Your task to perform on an android device: turn on bluetooth scan Image 0: 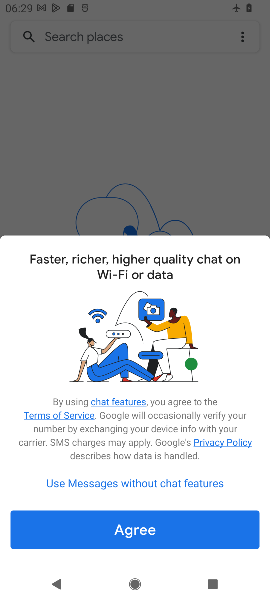
Step 0: press home button
Your task to perform on an android device: turn on bluetooth scan Image 1: 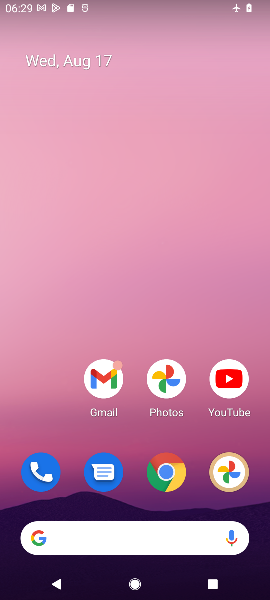
Step 1: drag from (44, 415) to (112, 2)
Your task to perform on an android device: turn on bluetooth scan Image 2: 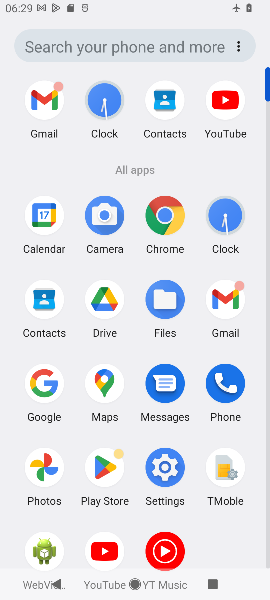
Step 2: click (169, 466)
Your task to perform on an android device: turn on bluetooth scan Image 3: 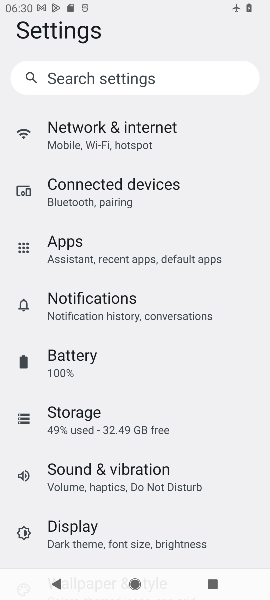
Step 3: drag from (111, 496) to (145, 101)
Your task to perform on an android device: turn on bluetooth scan Image 4: 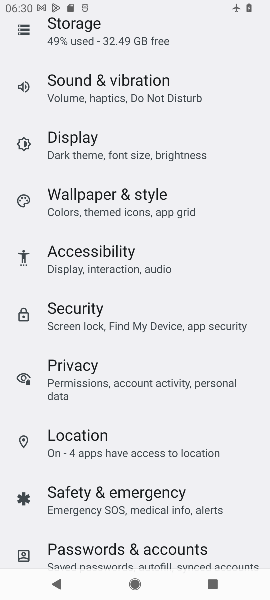
Step 4: click (116, 438)
Your task to perform on an android device: turn on bluetooth scan Image 5: 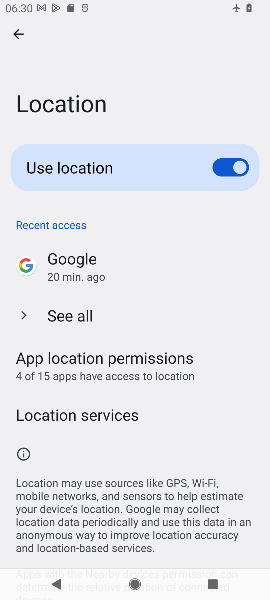
Step 5: drag from (163, 450) to (177, 253)
Your task to perform on an android device: turn on bluetooth scan Image 6: 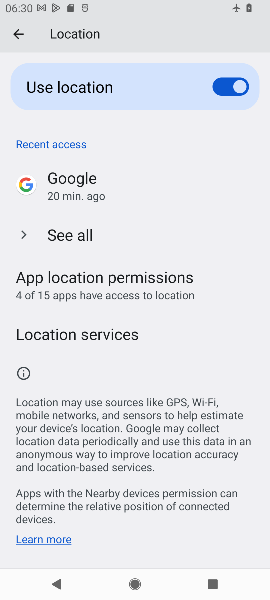
Step 6: click (122, 337)
Your task to perform on an android device: turn on bluetooth scan Image 7: 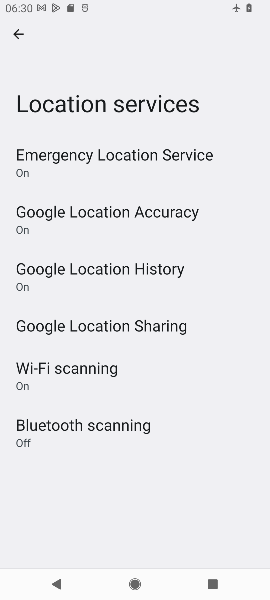
Step 7: click (122, 425)
Your task to perform on an android device: turn on bluetooth scan Image 8: 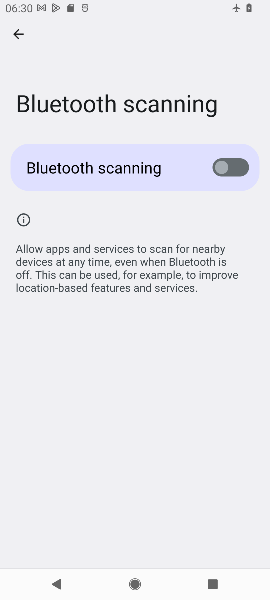
Step 8: click (239, 160)
Your task to perform on an android device: turn on bluetooth scan Image 9: 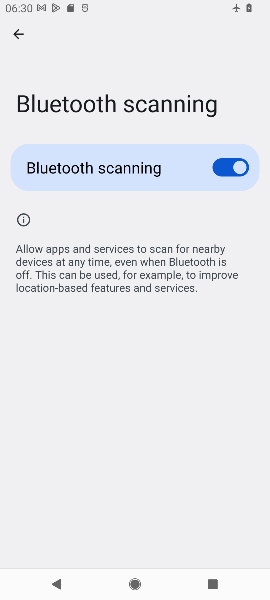
Step 9: task complete